Your task to perform on an android device: Open Google Chrome and click the shortcut for Amazon.com Image 0: 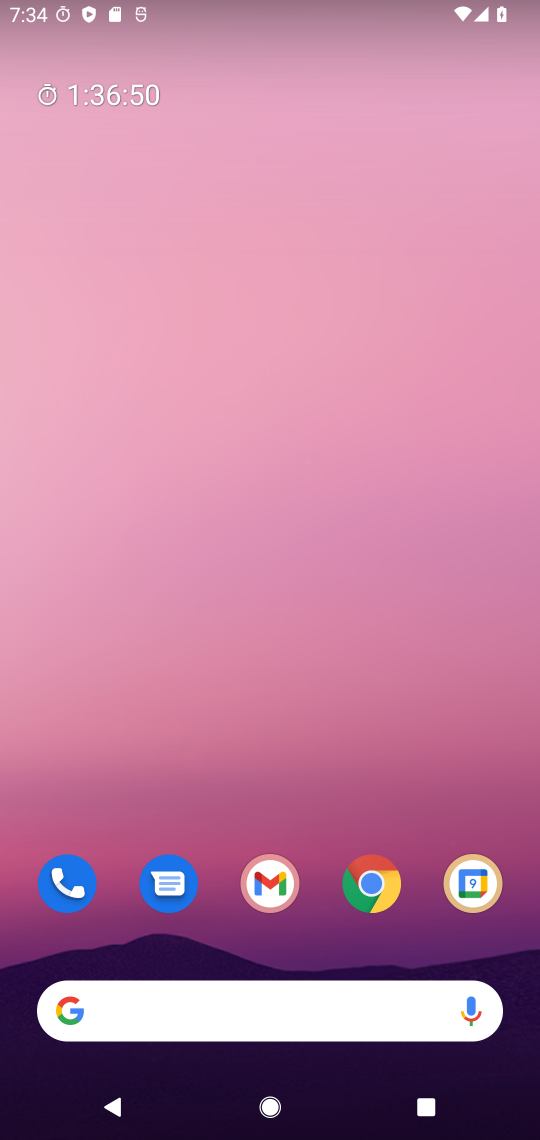
Step 0: click (365, 869)
Your task to perform on an android device: Open Google Chrome and click the shortcut for Amazon.com Image 1: 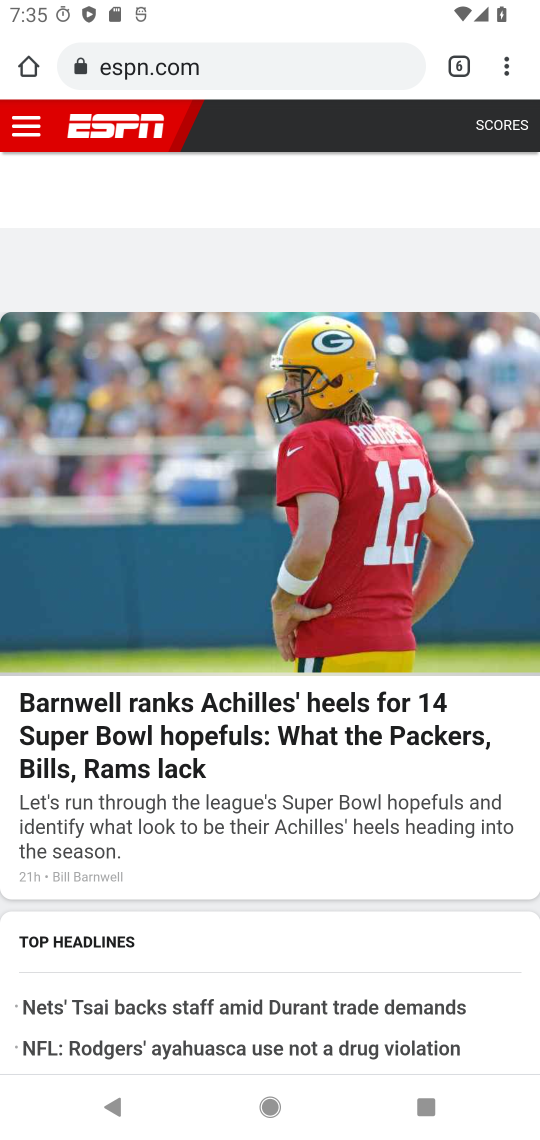
Step 1: click (466, 62)
Your task to perform on an android device: Open Google Chrome and click the shortcut for Amazon.com Image 2: 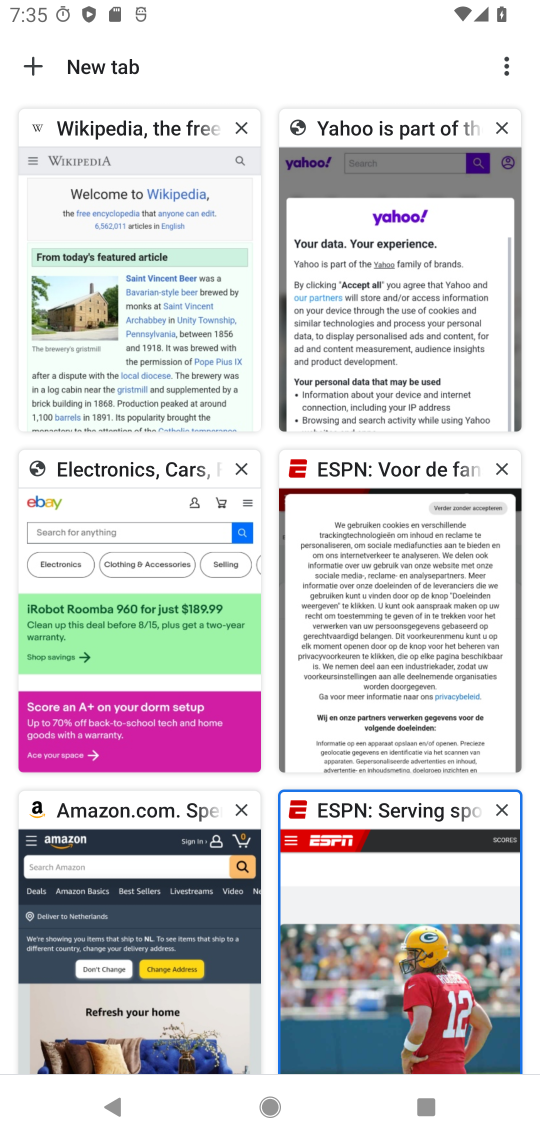
Step 2: click (29, 64)
Your task to perform on an android device: Open Google Chrome and click the shortcut for Amazon.com Image 3: 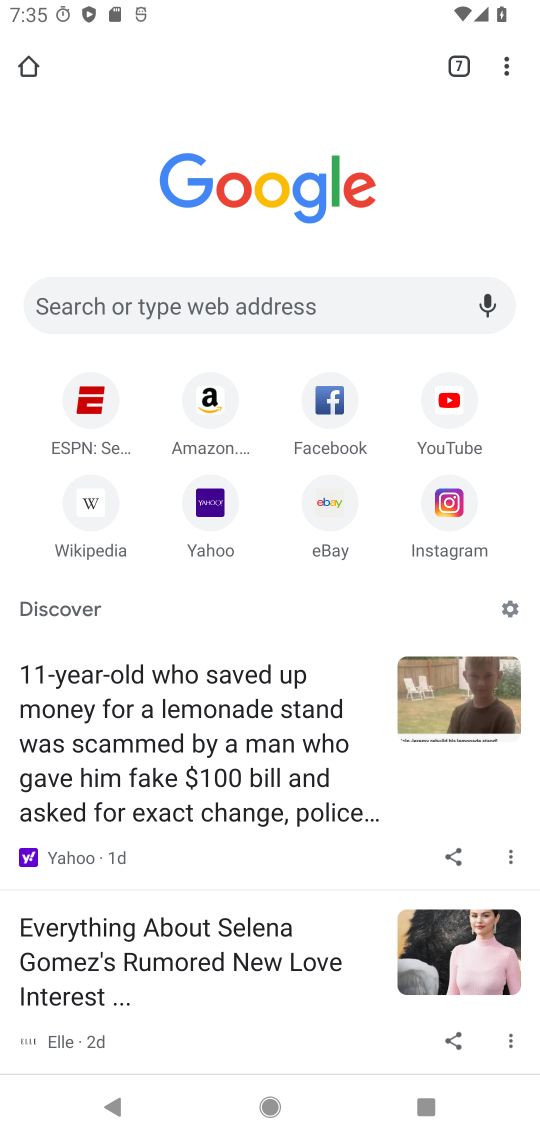
Step 3: click (221, 414)
Your task to perform on an android device: Open Google Chrome and click the shortcut for Amazon.com Image 4: 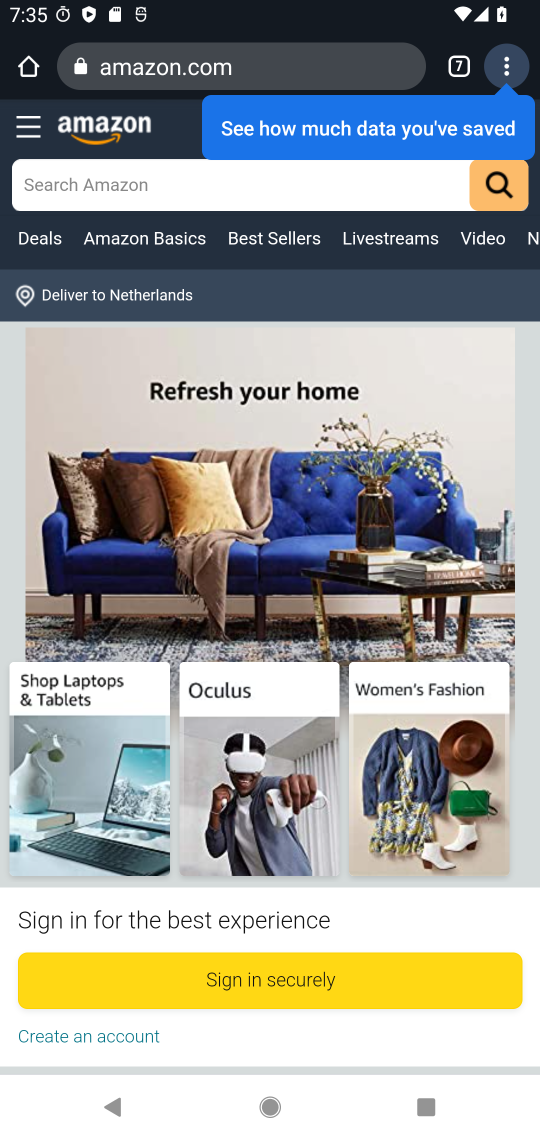
Step 4: task complete